Your task to perform on an android device: Open Youtube and go to "Your channel" Image 0: 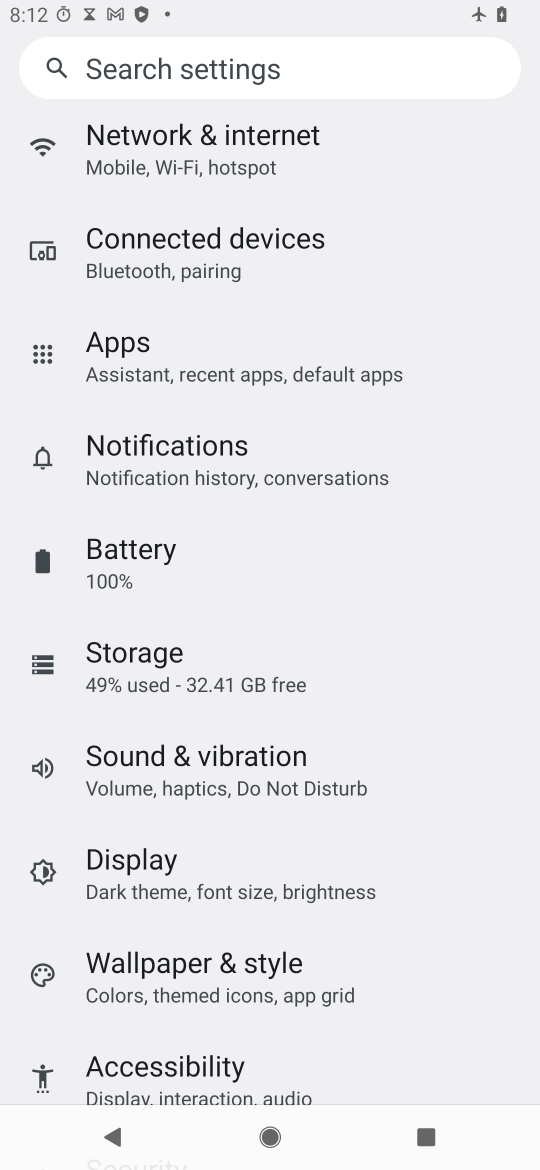
Step 0: press home button
Your task to perform on an android device: Open Youtube and go to "Your channel" Image 1: 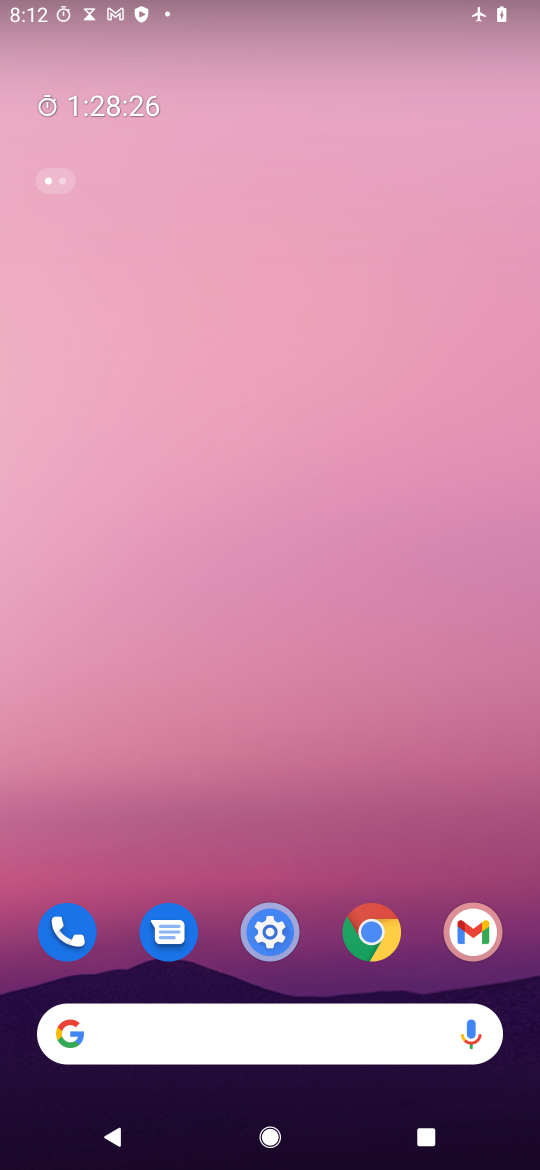
Step 1: drag from (411, 843) to (413, 147)
Your task to perform on an android device: Open Youtube and go to "Your channel" Image 2: 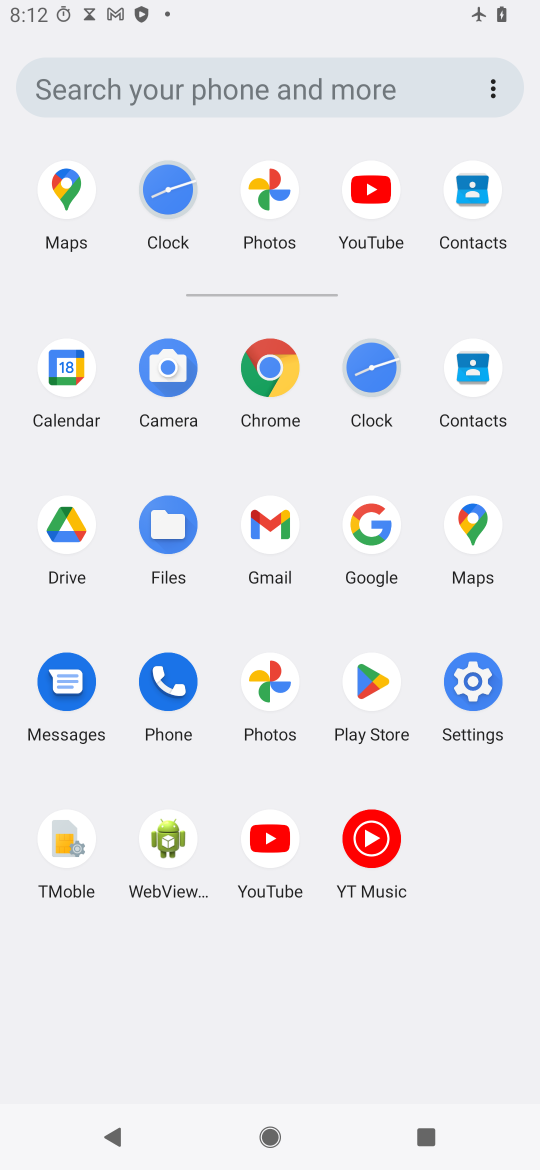
Step 2: click (296, 841)
Your task to perform on an android device: Open Youtube and go to "Your channel" Image 3: 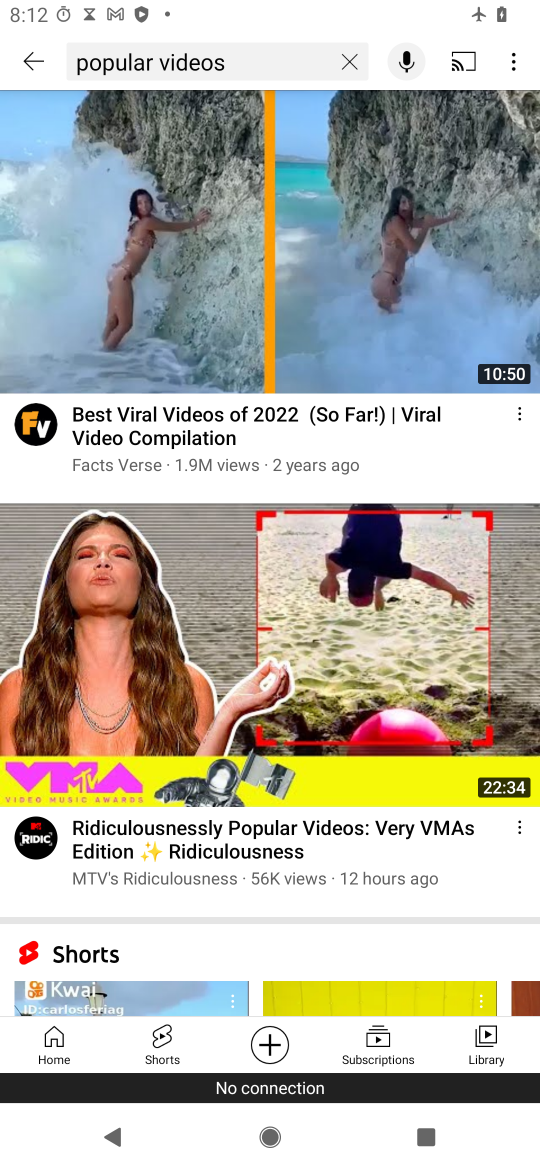
Step 3: task complete